Your task to perform on an android device: Open Google Chrome Image 0: 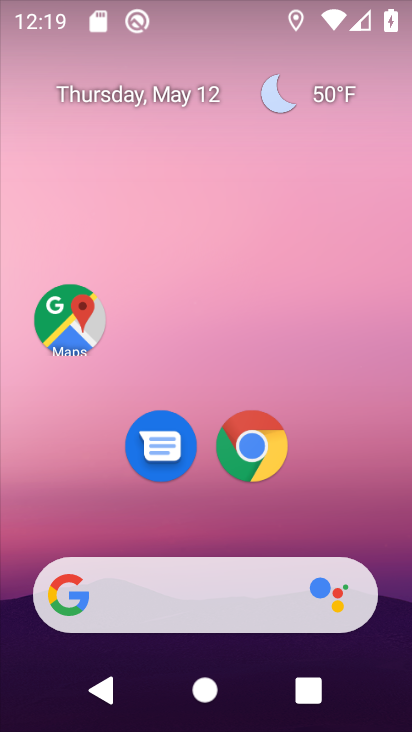
Step 0: click (259, 438)
Your task to perform on an android device: Open Google Chrome Image 1: 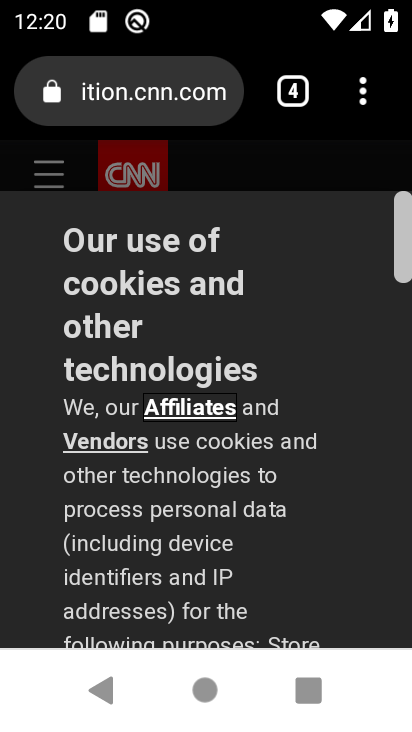
Step 1: click (363, 106)
Your task to perform on an android device: Open Google Chrome Image 2: 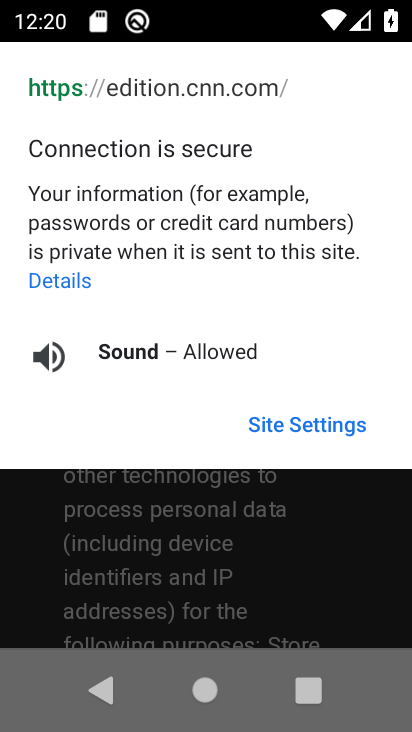
Step 2: click (203, 685)
Your task to perform on an android device: Open Google Chrome Image 3: 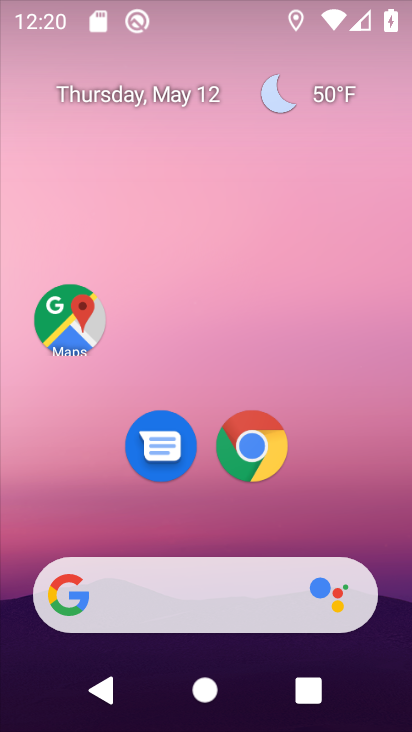
Step 3: press home button
Your task to perform on an android device: Open Google Chrome Image 4: 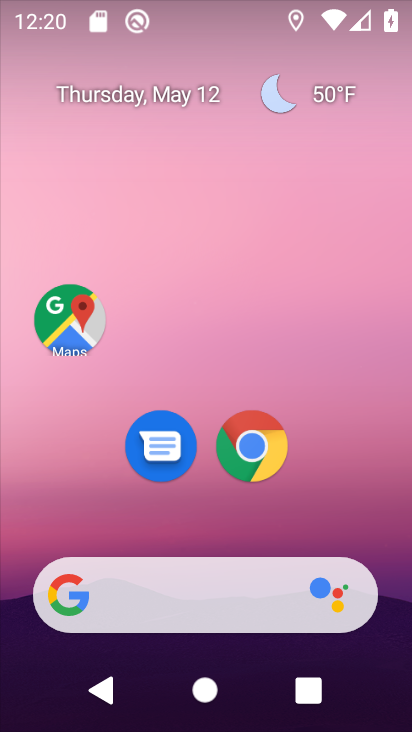
Step 4: click (255, 457)
Your task to perform on an android device: Open Google Chrome Image 5: 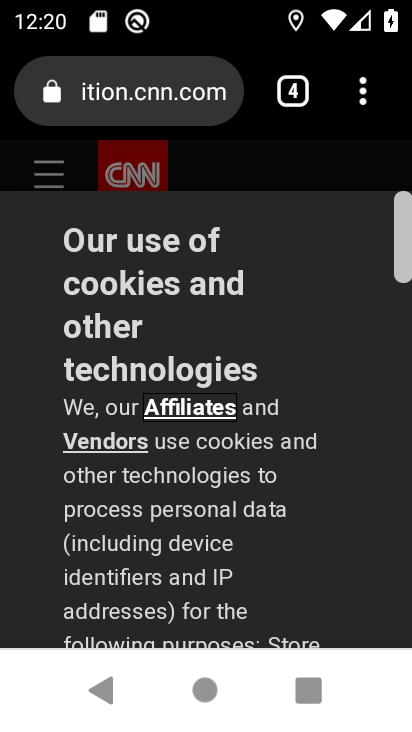
Step 5: task complete